Your task to perform on an android device: Open the calendar app, open the side menu, and click the "Day" option Image 0: 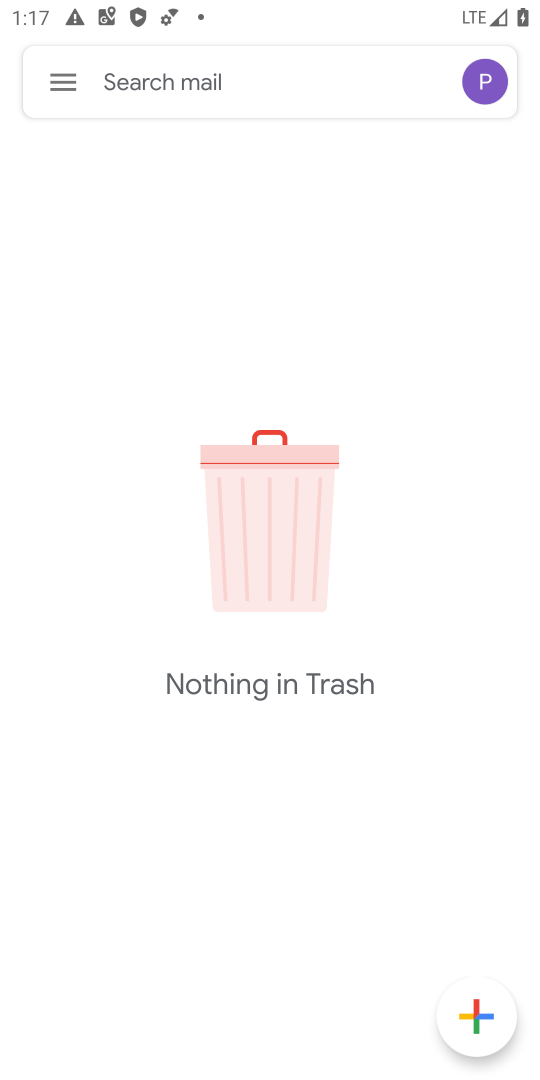
Step 0: press back button
Your task to perform on an android device: Open the calendar app, open the side menu, and click the "Day" option Image 1: 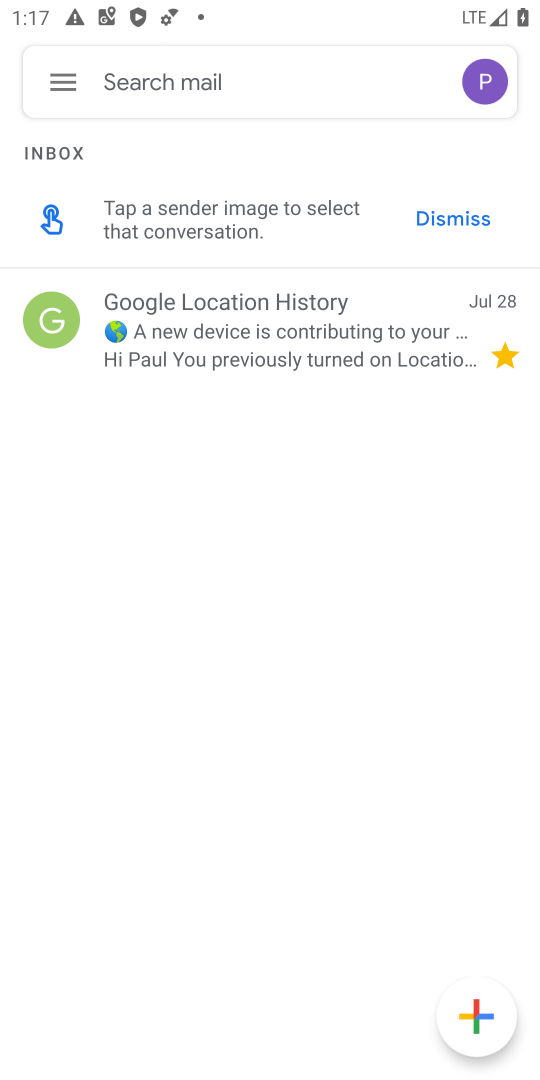
Step 1: press home button
Your task to perform on an android device: Open the calendar app, open the side menu, and click the "Day" option Image 2: 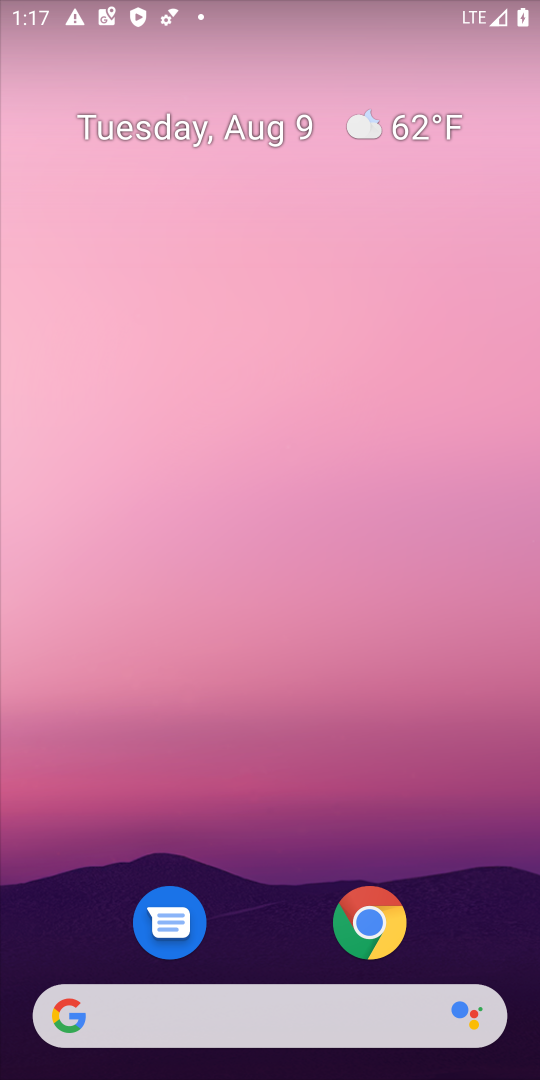
Step 2: drag from (265, 978) to (167, 119)
Your task to perform on an android device: Open the calendar app, open the side menu, and click the "Day" option Image 3: 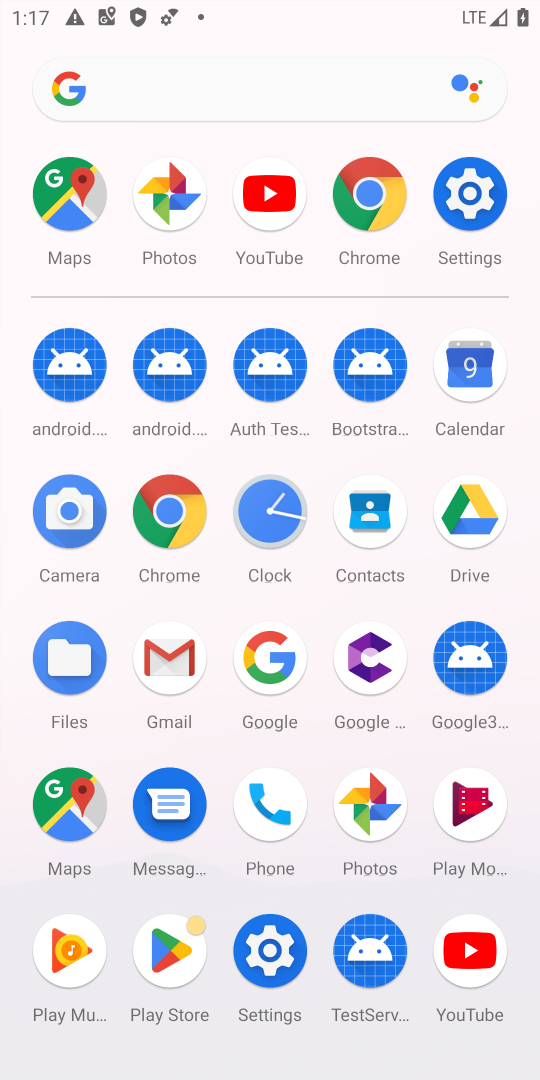
Step 3: click (465, 373)
Your task to perform on an android device: Open the calendar app, open the side menu, and click the "Day" option Image 4: 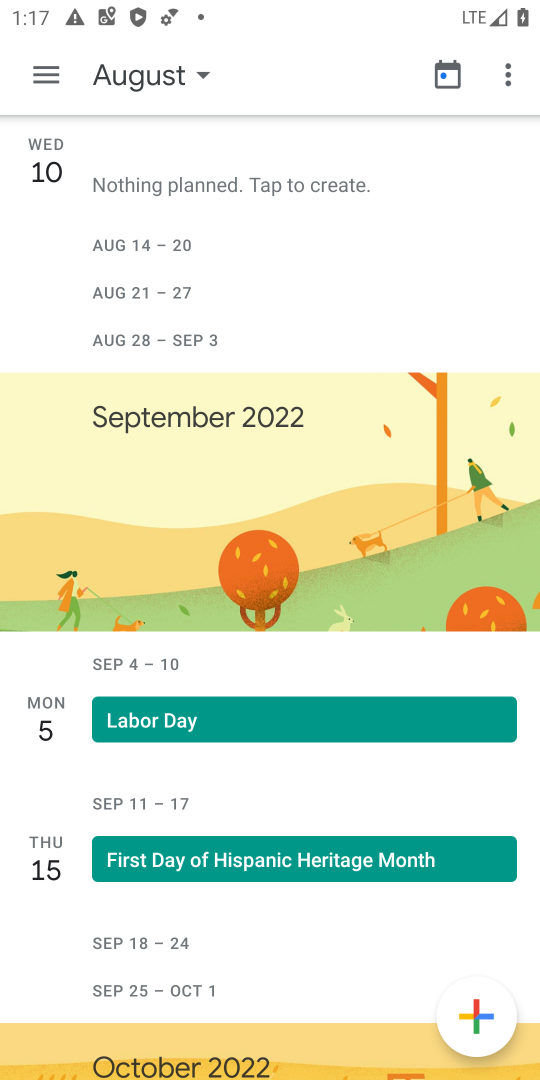
Step 4: click (29, 67)
Your task to perform on an android device: Open the calendar app, open the side menu, and click the "Day" option Image 5: 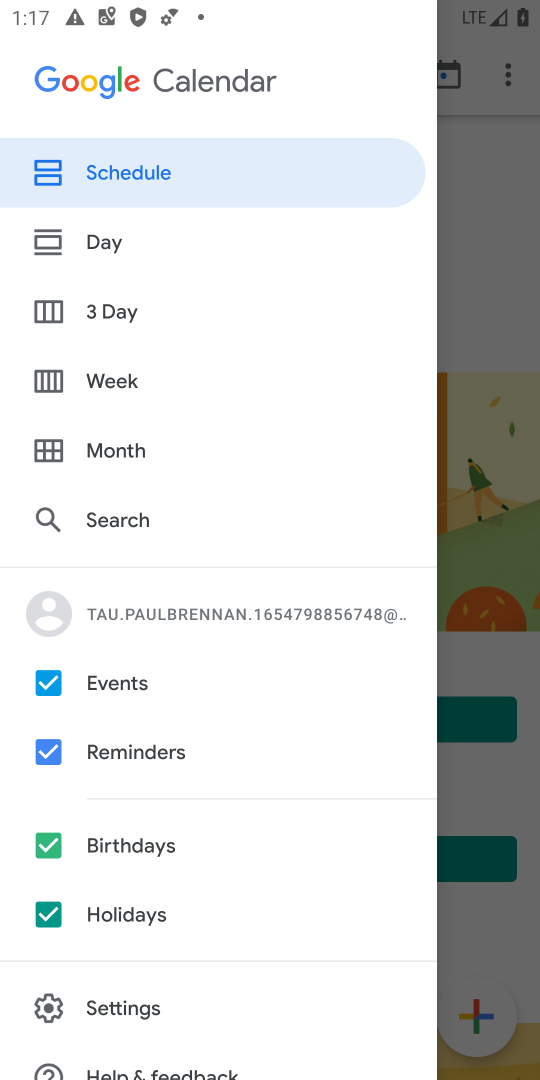
Step 5: click (125, 239)
Your task to perform on an android device: Open the calendar app, open the side menu, and click the "Day" option Image 6: 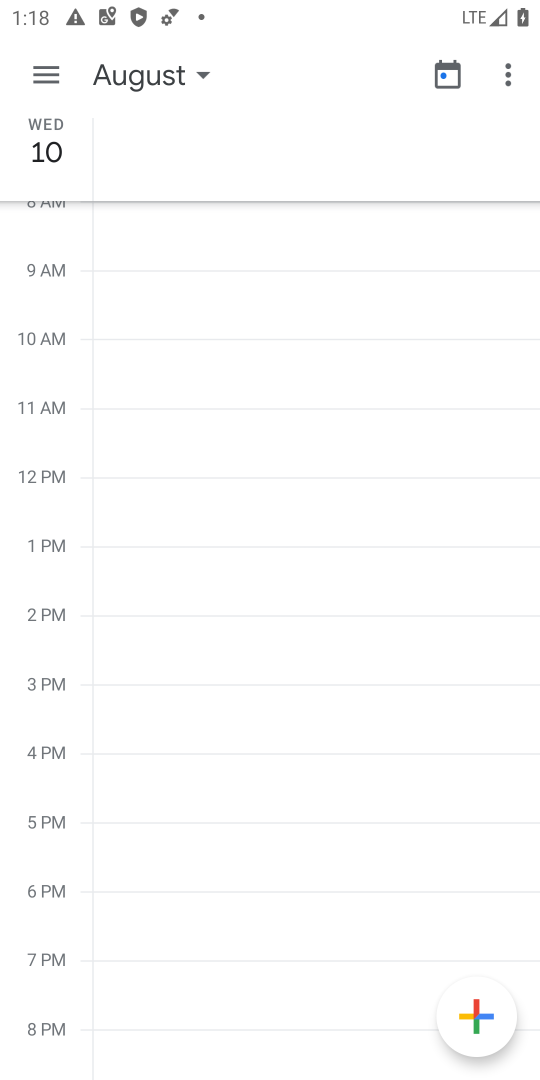
Step 6: task complete